Your task to perform on an android device: Show me recent news Image 0: 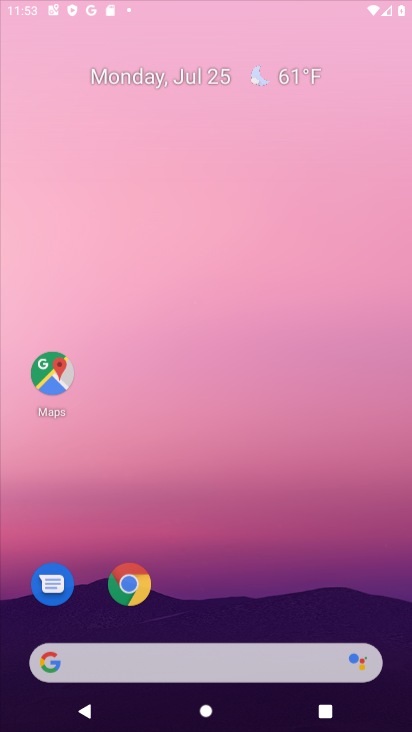
Step 0: press home button
Your task to perform on an android device: Show me recent news Image 1: 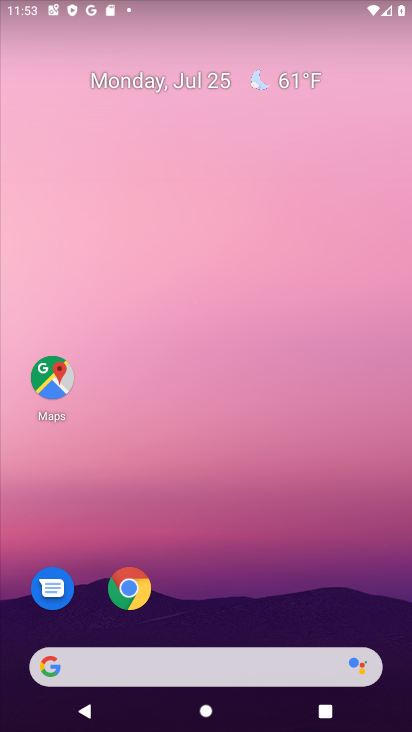
Step 1: task complete